Your task to perform on an android device: uninstall "Google Pay: Save, Pay, Manage" Image 0: 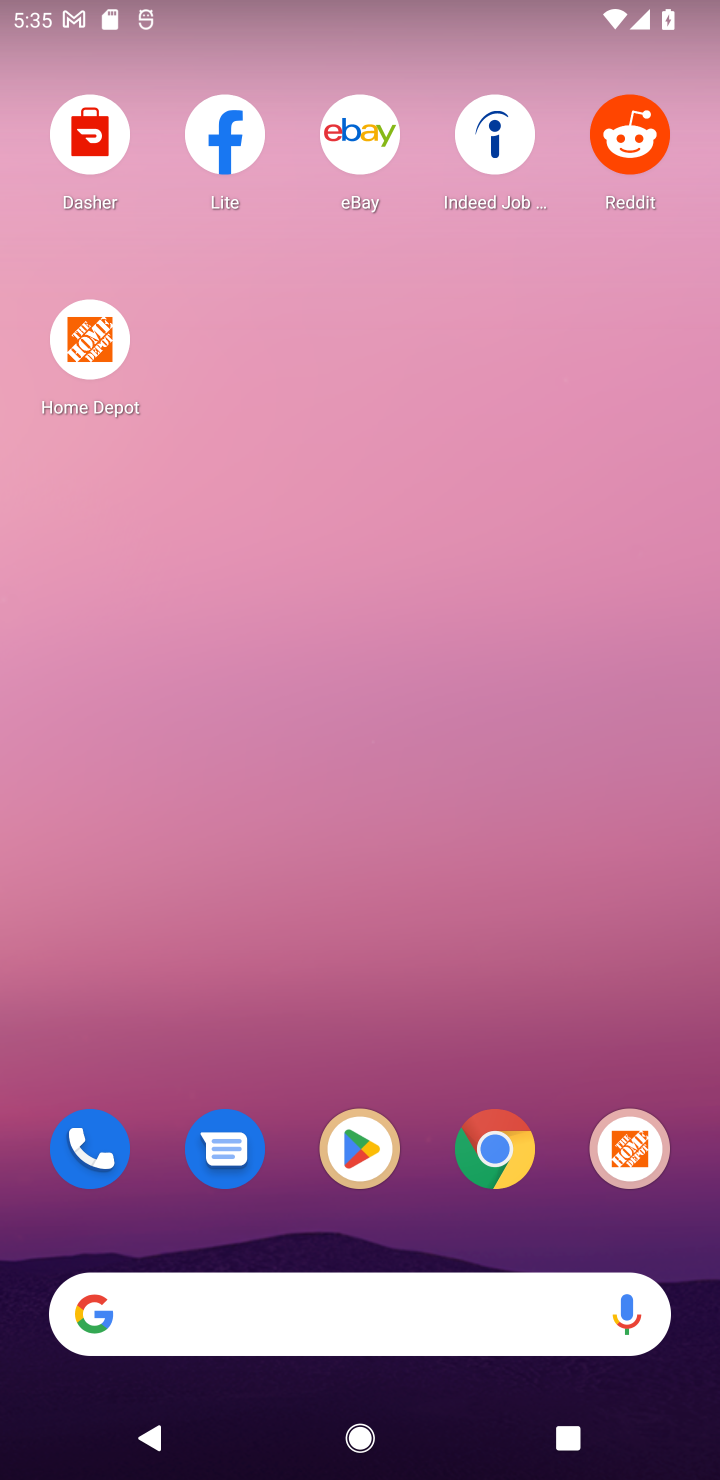
Step 0: press home button
Your task to perform on an android device: uninstall "Google Pay: Save, Pay, Manage" Image 1: 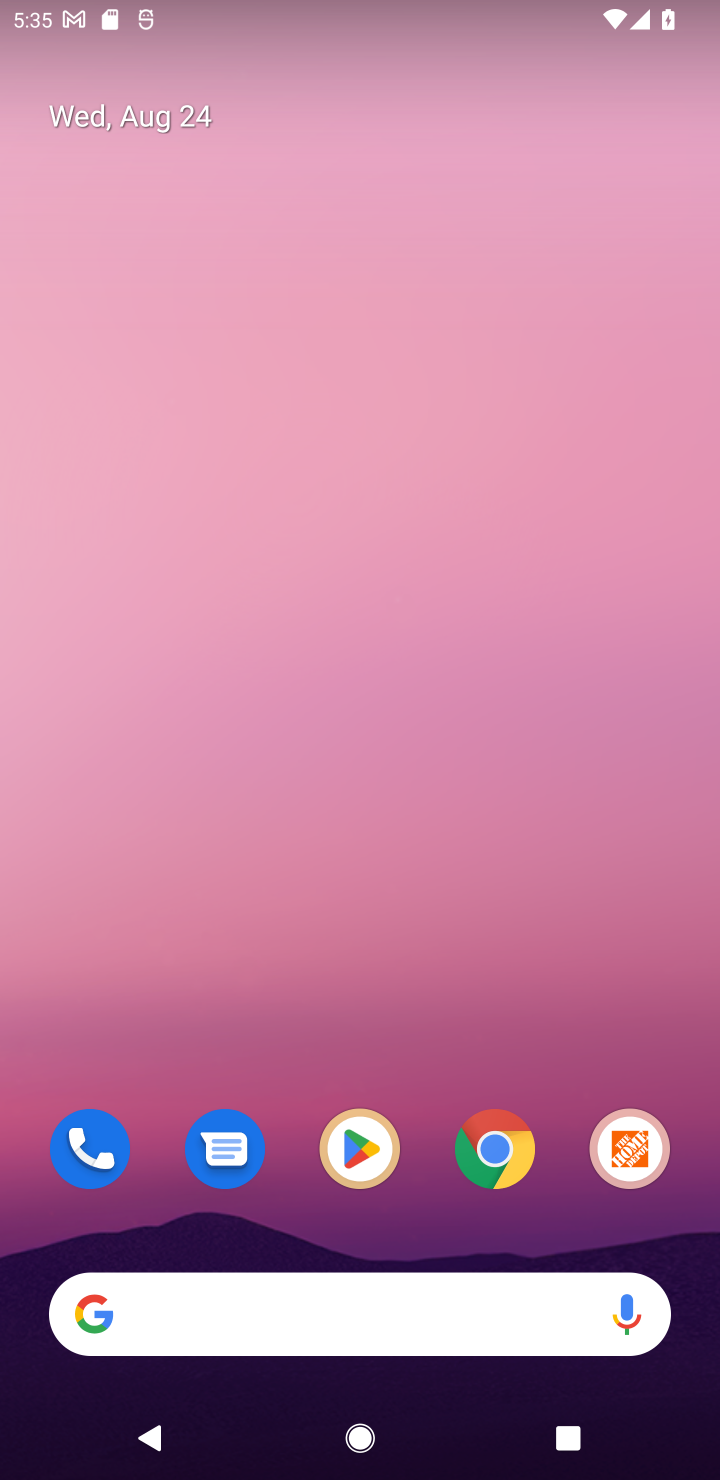
Step 1: click (371, 1138)
Your task to perform on an android device: uninstall "Google Pay: Save, Pay, Manage" Image 2: 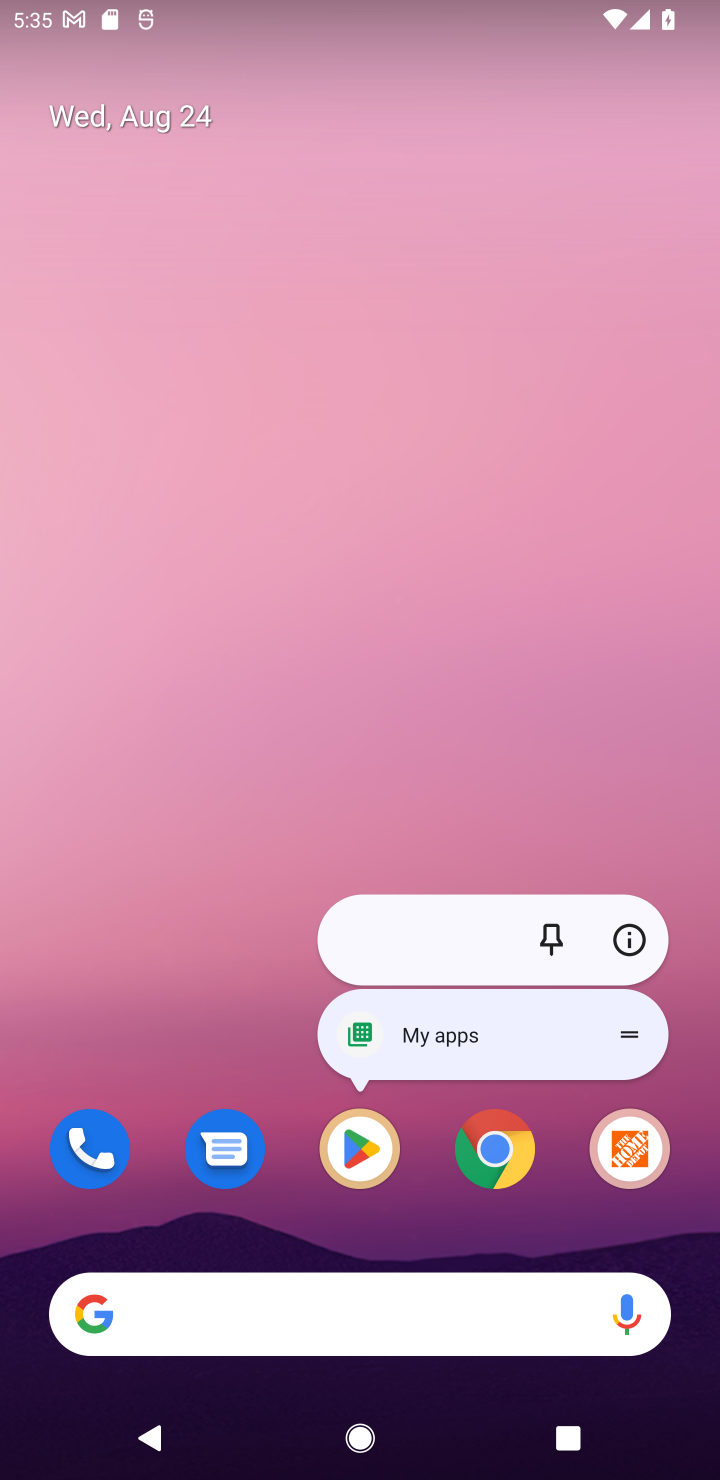
Step 2: click (371, 1147)
Your task to perform on an android device: uninstall "Google Pay: Save, Pay, Manage" Image 3: 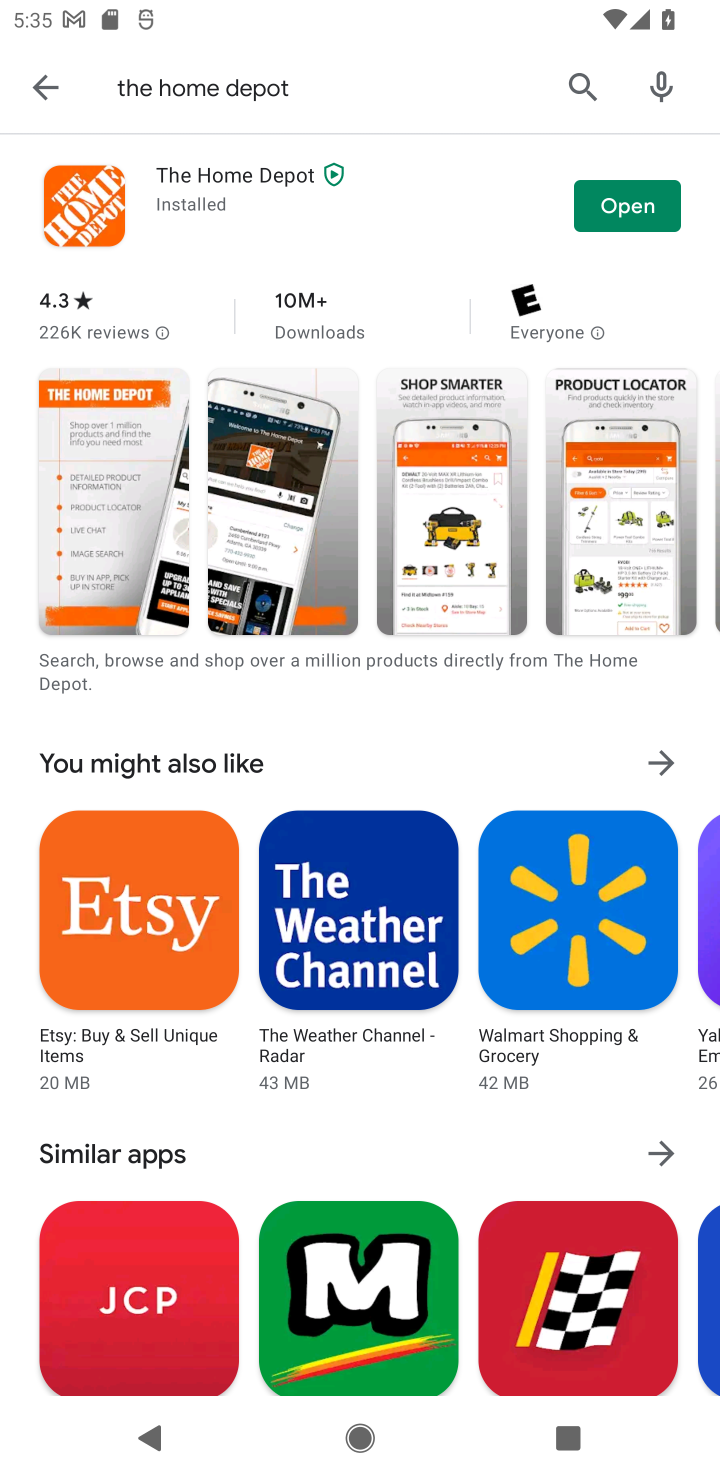
Step 3: click (581, 85)
Your task to perform on an android device: uninstall "Google Pay: Save, Pay, Manage" Image 4: 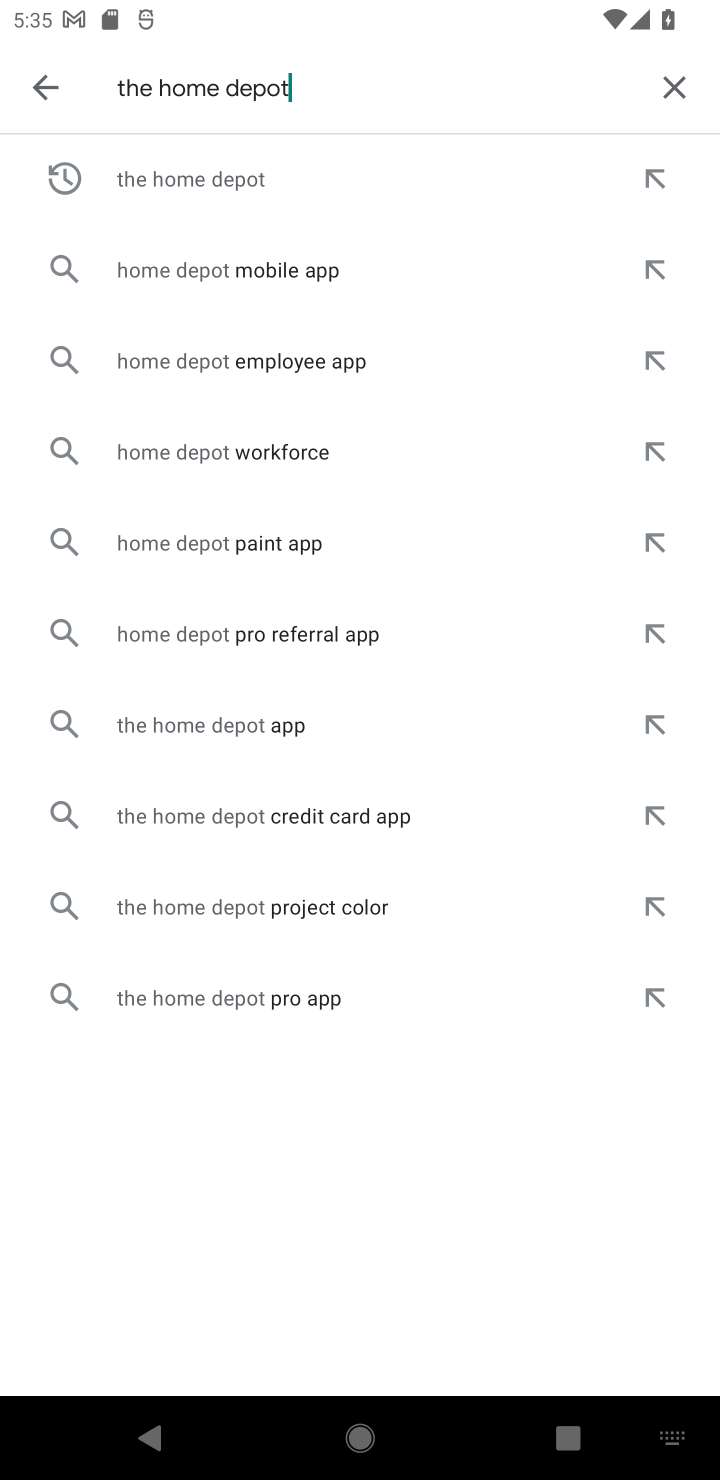
Step 4: click (676, 77)
Your task to perform on an android device: uninstall "Google Pay: Save, Pay, Manage" Image 5: 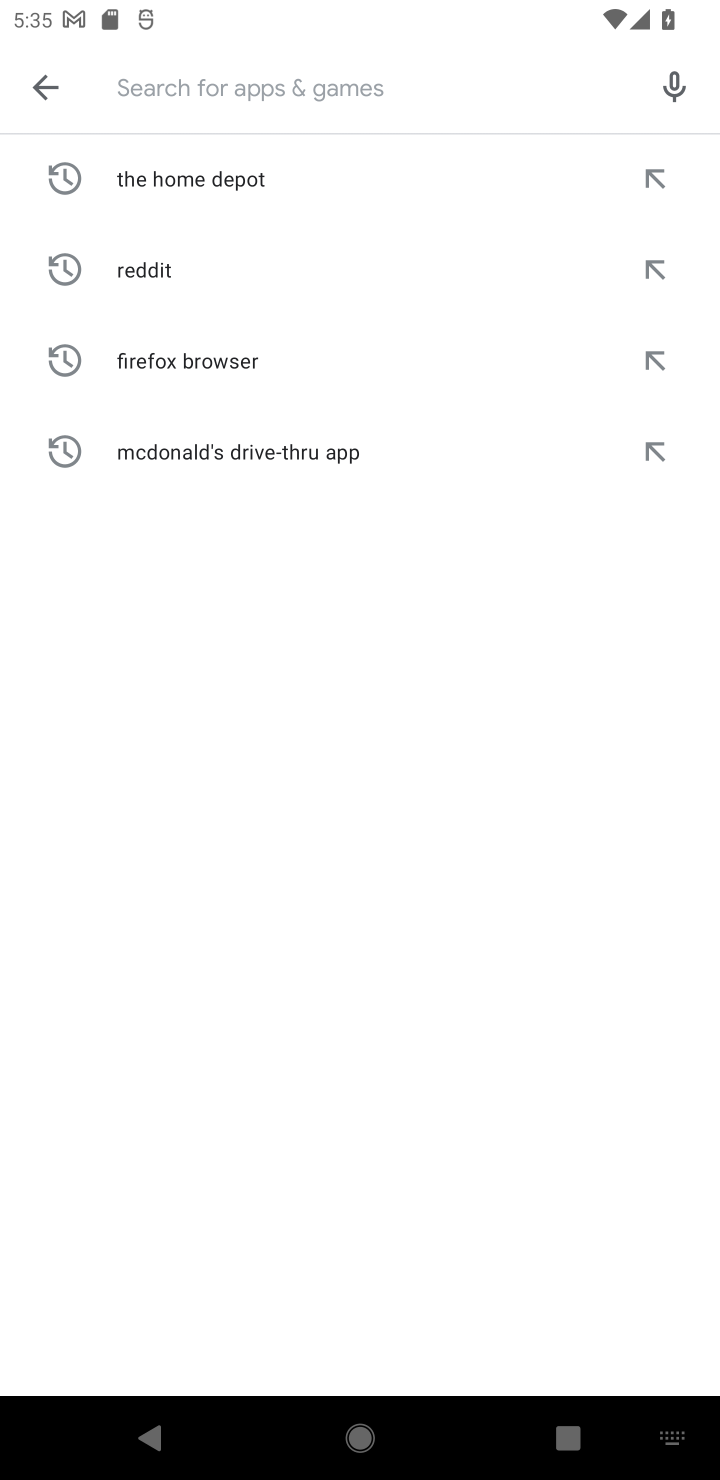
Step 5: type "Google Pay: Save, Pay, Manage"
Your task to perform on an android device: uninstall "Google Pay: Save, Pay, Manage" Image 6: 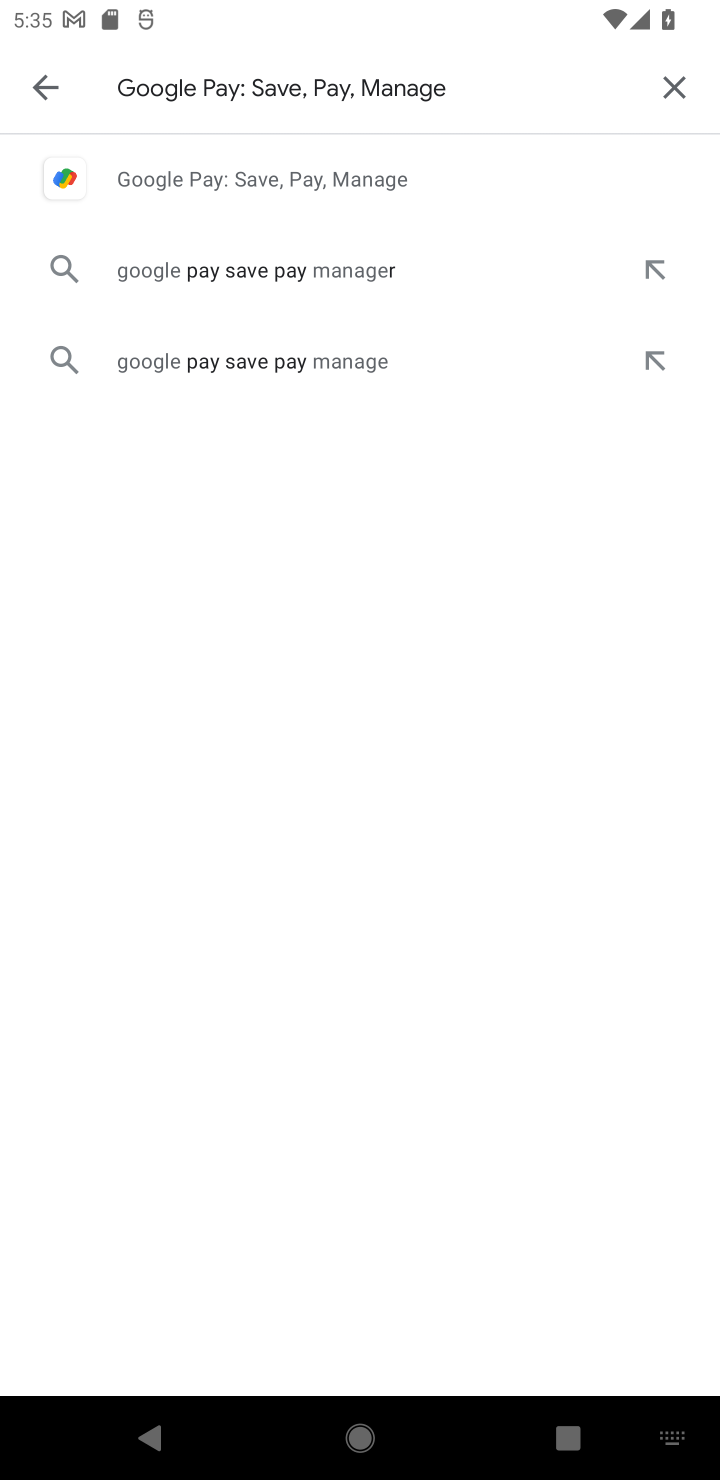
Step 6: click (317, 173)
Your task to perform on an android device: uninstall "Google Pay: Save, Pay, Manage" Image 7: 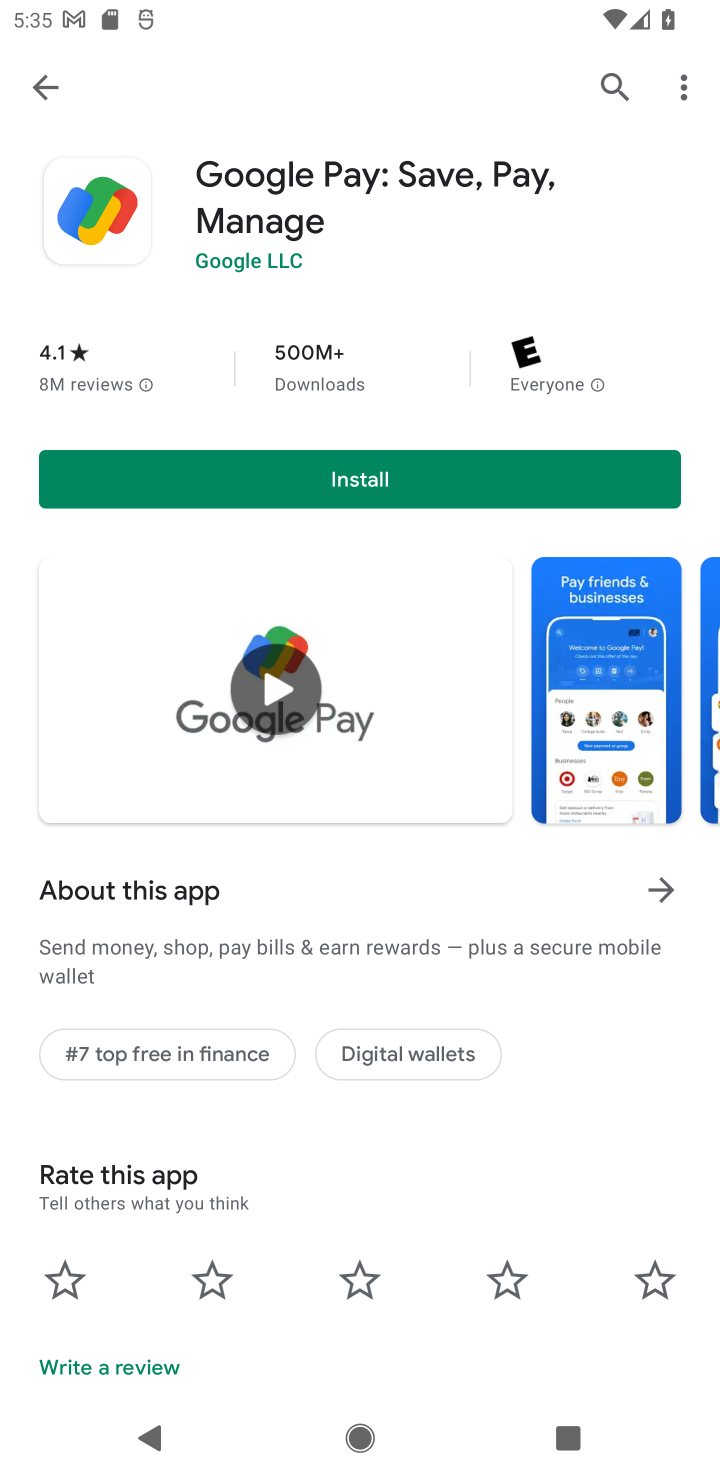
Step 7: task complete